Your task to perform on an android device: find which apps use the phone's location Image 0: 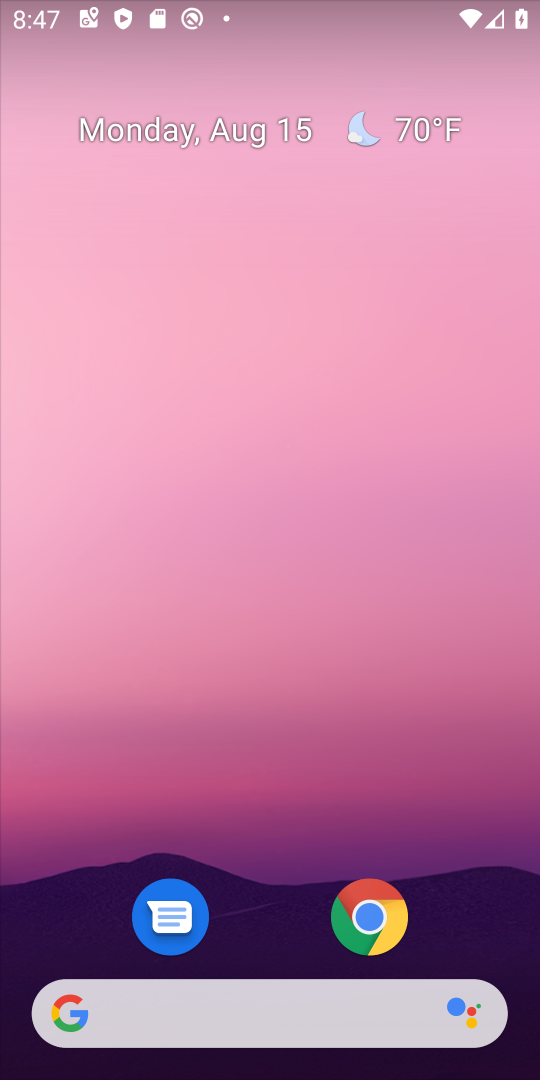
Step 0: drag from (261, 800) to (305, 4)
Your task to perform on an android device: find which apps use the phone's location Image 1: 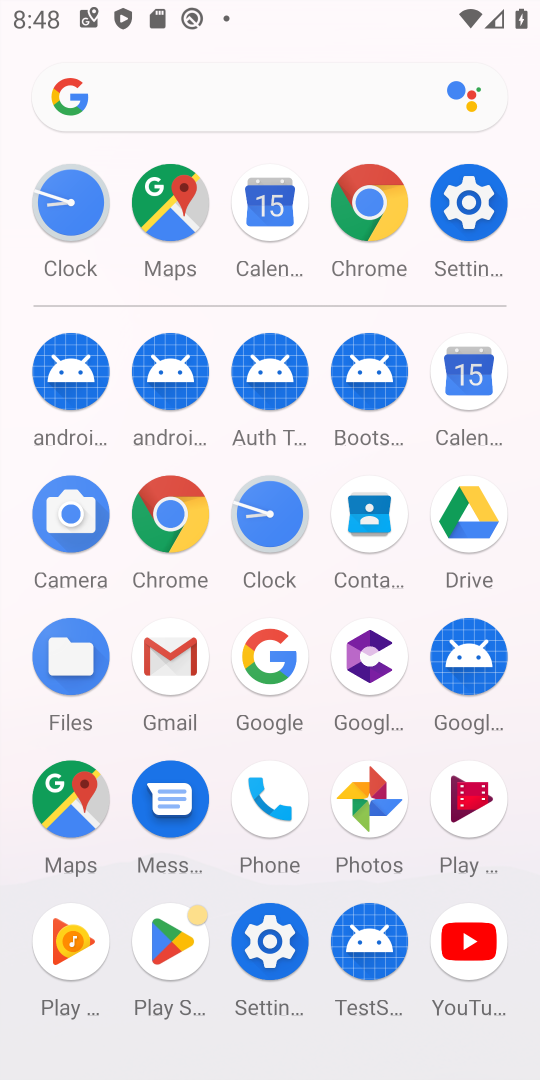
Step 1: click (468, 186)
Your task to perform on an android device: find which apps use the phone's location Image 2: 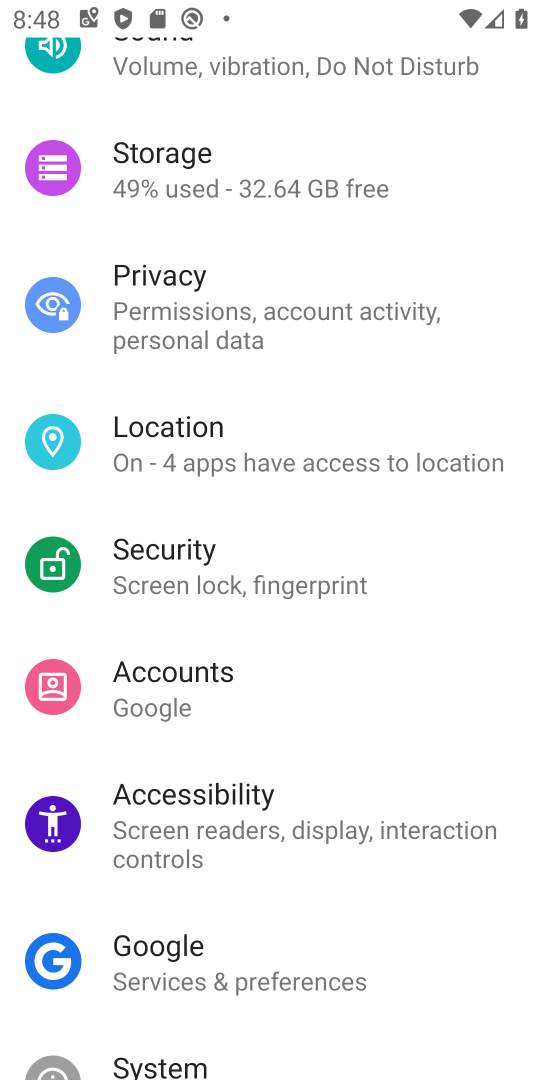
Step 2: click (277, 450)
Your task to perform on an android device: find which apps use the phone's location Image 3: 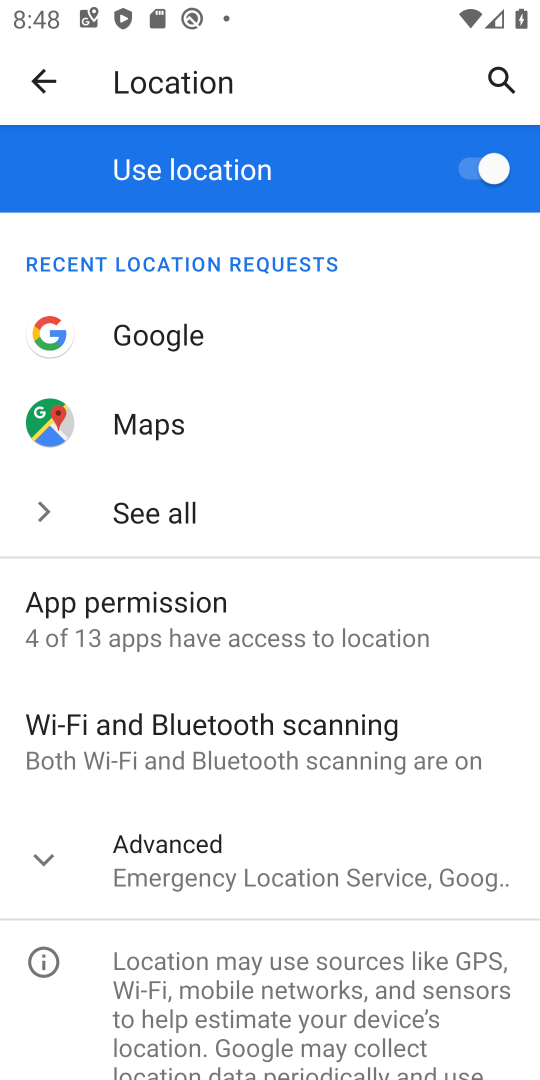
Step 3: click (262, 607)
Your task to perform on an android device: find which apps use the phone's location Image 4: 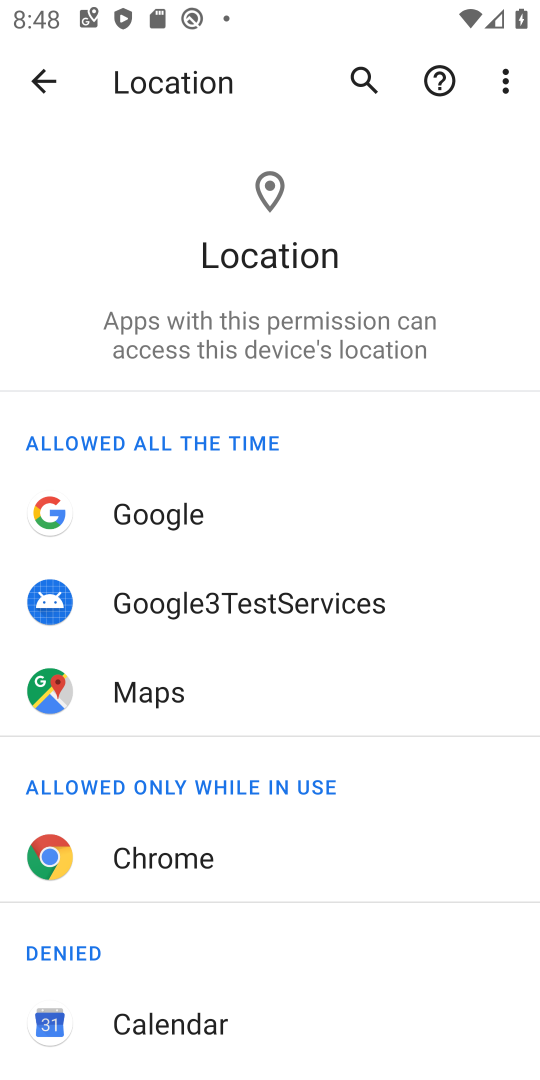
Step 4: task complete